Your task to perform on an android device: toggle notifications settings in the gmail app Image 0: 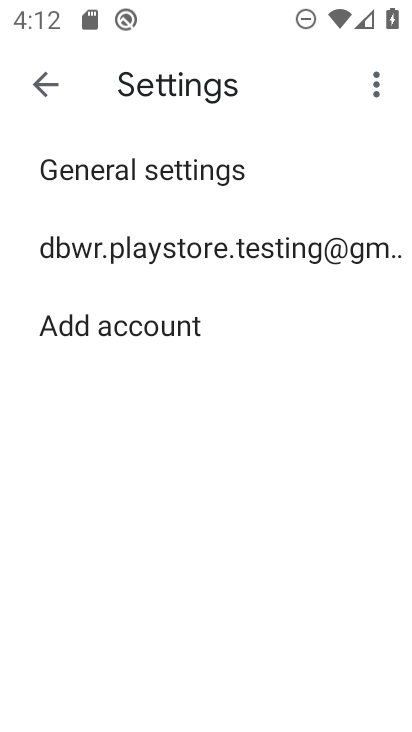
Step 0: press home button
Your task to perform on an android device: toggle notifications settings in the gmail app Image 1: 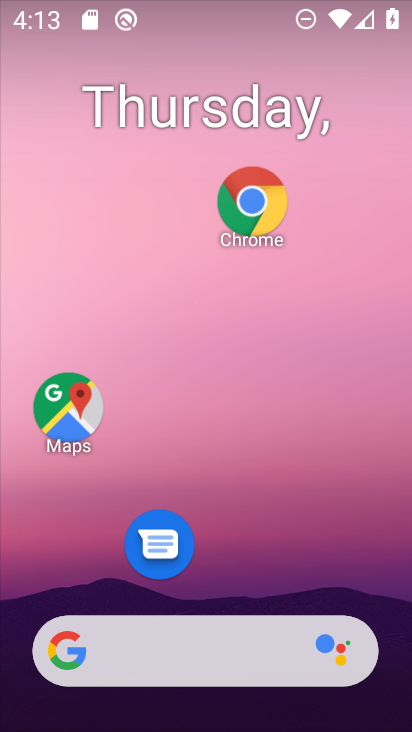
Step 1: drag from (279, 540) to (361, 22)
Your task to perform on an android device: toggle notifications settings in the gmail app Image 2: 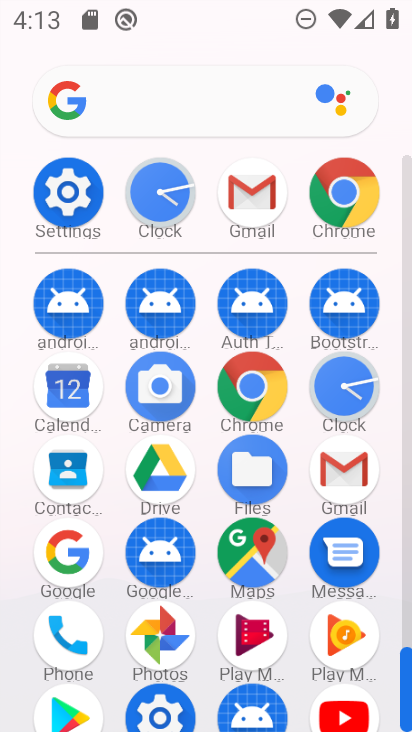
Step 2: click (56, 208)
Your task to perform on an android device: toggle notifications settings in the gmail app Image 3: 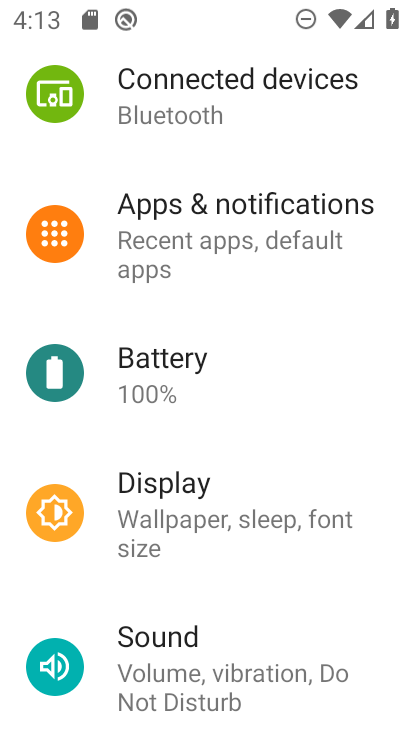
Step 3: click (207, 223)
Your task to perform on an android device: toggle notifications settings in the gmail app Image 4: 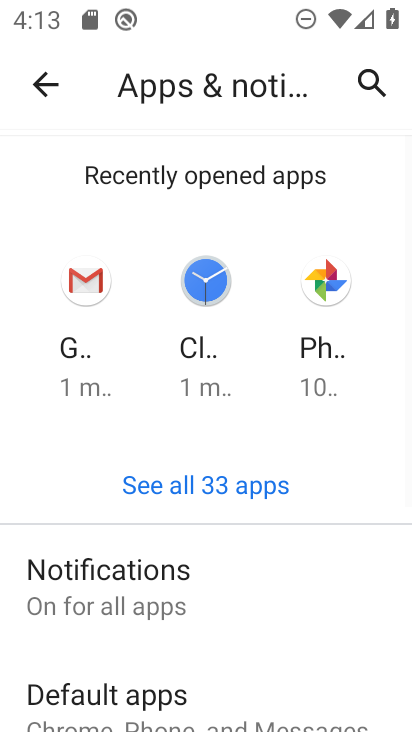
Step 4: click (178, 589)
Your task to perform on an android device: toggle notifications settings in the gmail app Image 5: 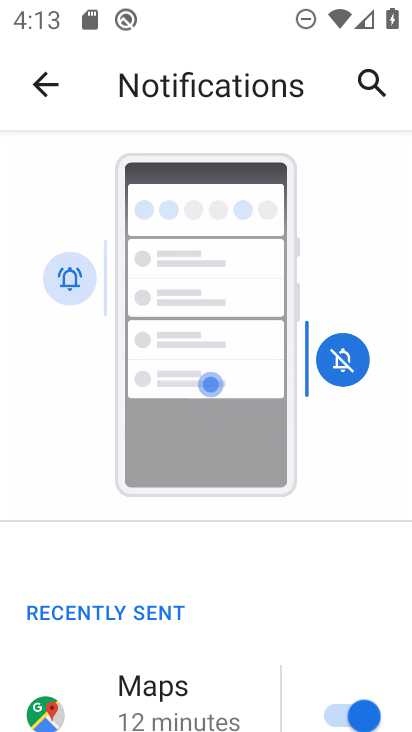
Step 5: task complete